Your task to perform on an android device: show emergency info Image 0: 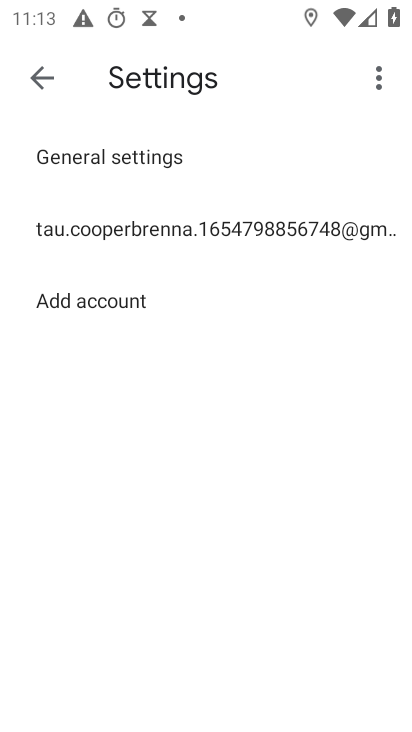
Step 0: press home button
Your task to perform on an android device: show emergency info Image 1: 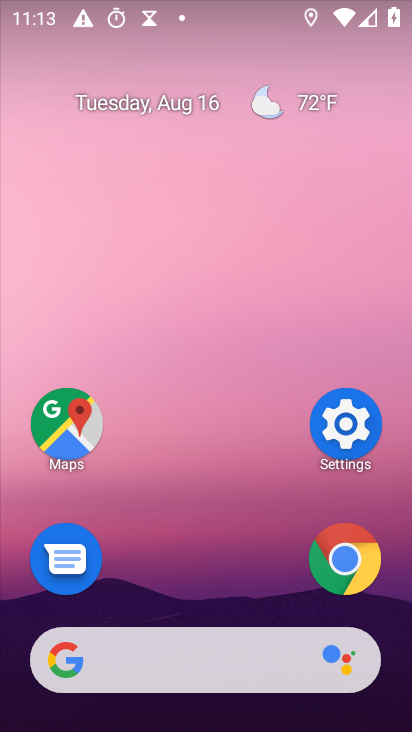
Step 1: click (339, 422)
Your task to perform on an android device: show emergency info Image 2: 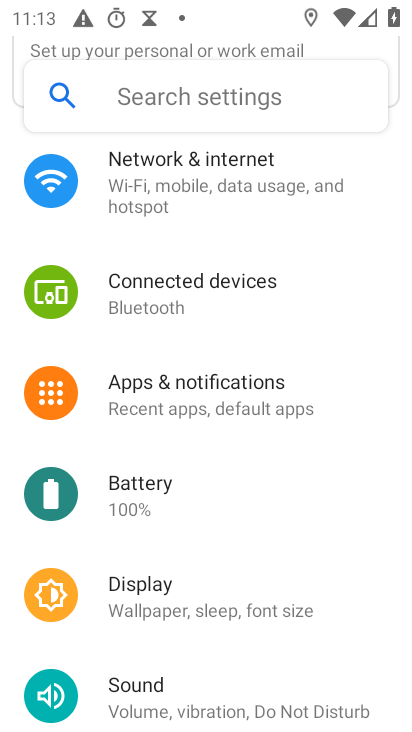
Step 2: drag from (268, 646) to (361, 149)
Your task to perform on an android device: show emergency info Image 3: 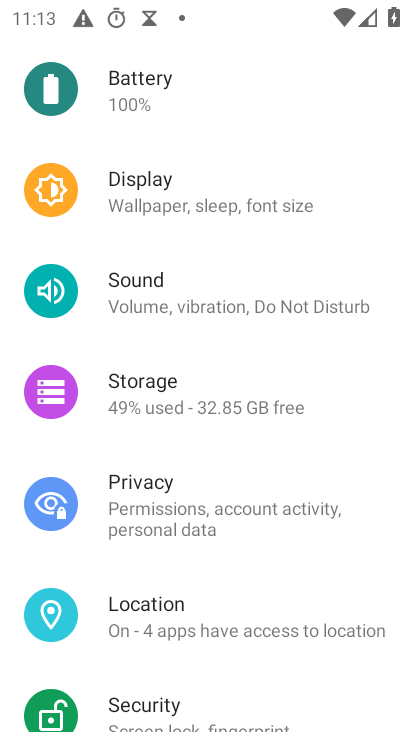
Step 3: drag from (255, 662) to (305, 353)
Your task to perform on an android device: show emergency info Image 4: 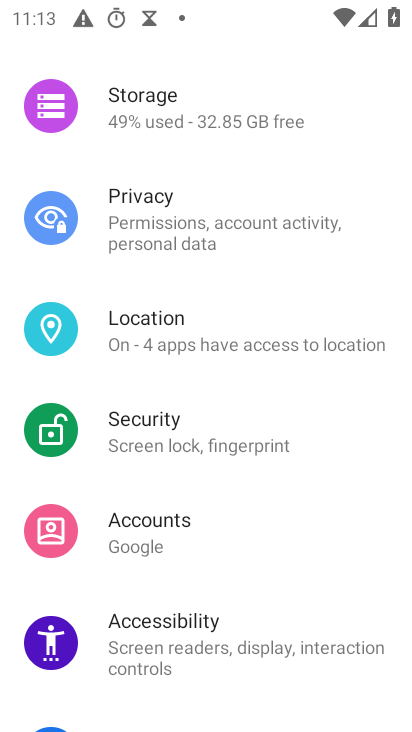
Step 4: drag from (248, 673) to (366, 162)
Your task to perform on an android device: show emergency info Image 5: 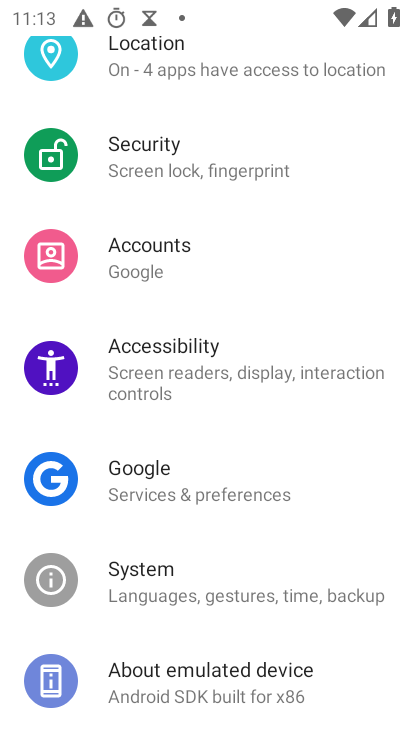
Step 5: click (185, 669)
Your task to perform on an android device: show emergency info Image 6: 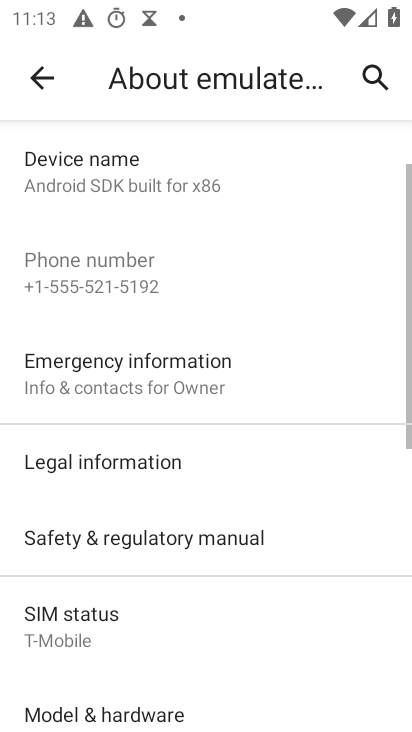
Step 6: click (172, 382)
Your task to perform on an android device: show emergency info Image 7: 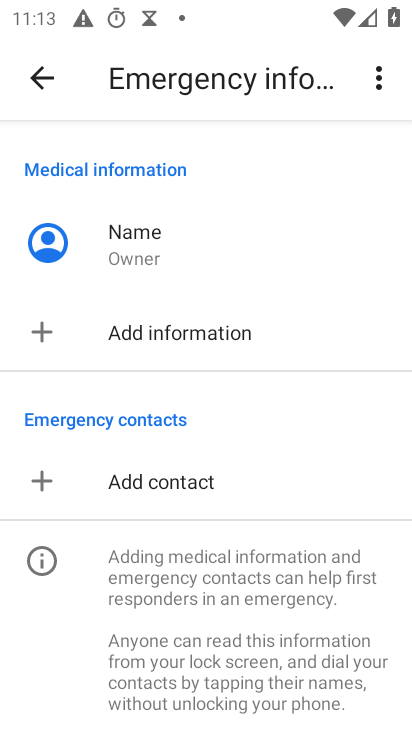
Step 7: task complete